Your task to perform on an android device: Open the web browser Image 0: 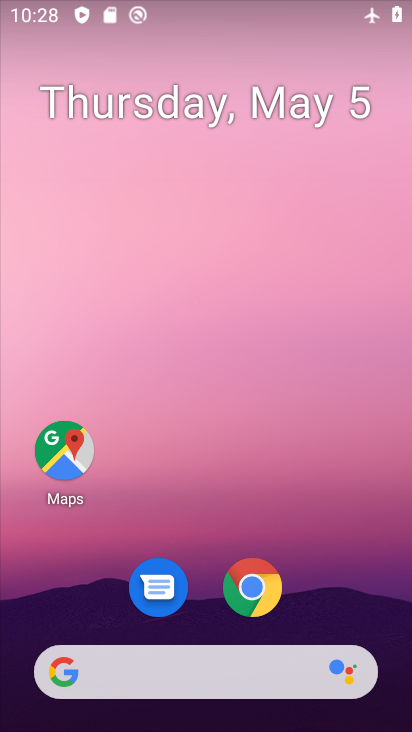
Step 0: drag from (322, 572) to (299, 58)
Your task to perform on an android device: Open the web browser Image 1: 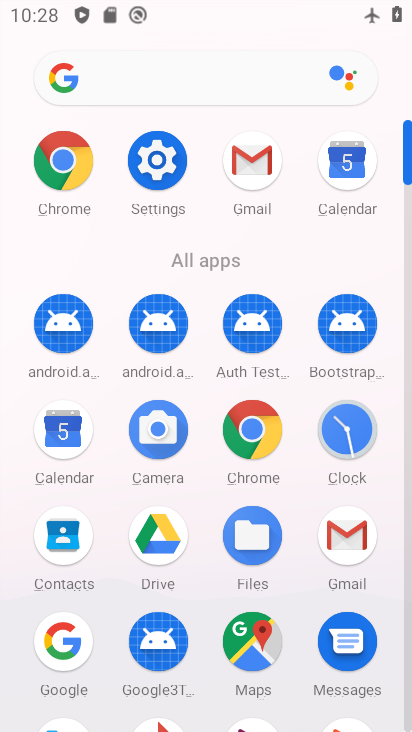
Step 1: drag from (7, 627) to (7, 338)
Your task to perform on an android device: Open the web browser Image 2: 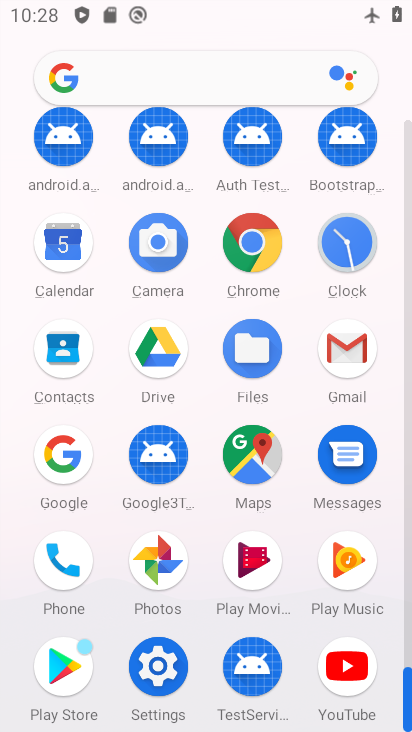
Step 2: click (246, 231)
Your task to perform on an android device: Open the web browser Image 3: 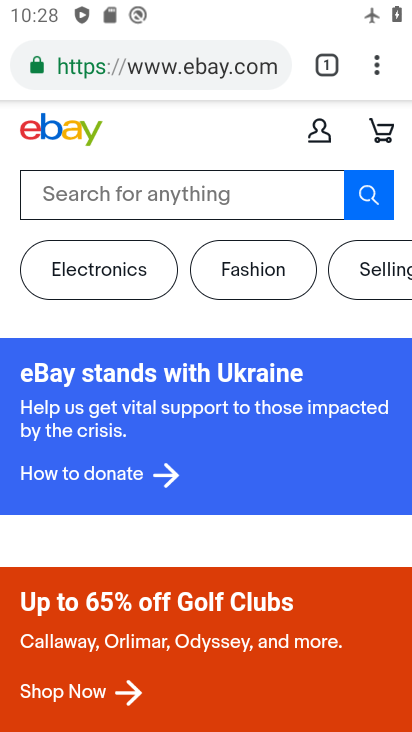
Step 3: task complete